Your task to perform on an android device: turn pop-ups on in chrome Image 0: 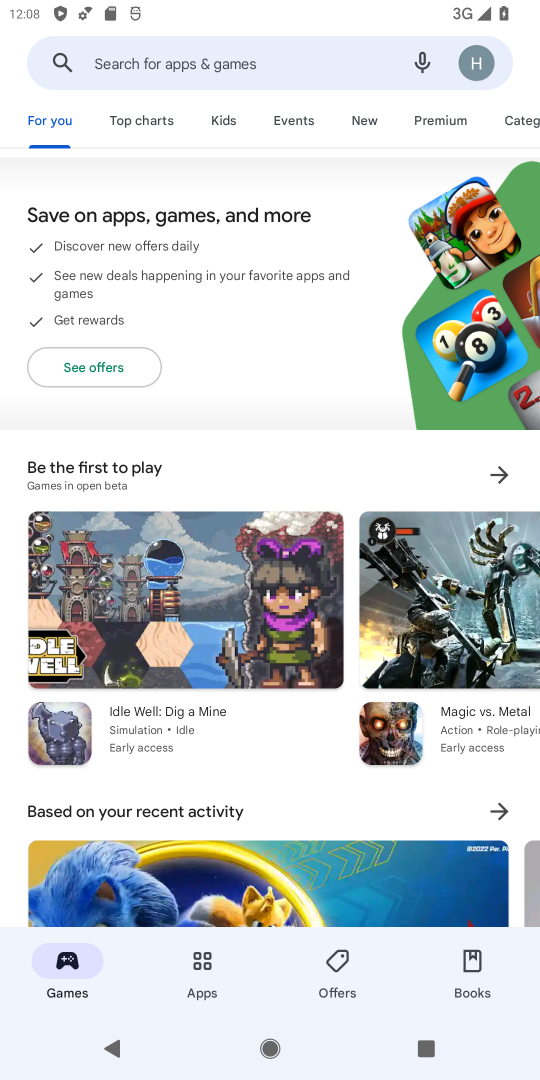
Step 0: press home button
Your task to perform on an android device: turn pop-ups on in chrome Image 1: 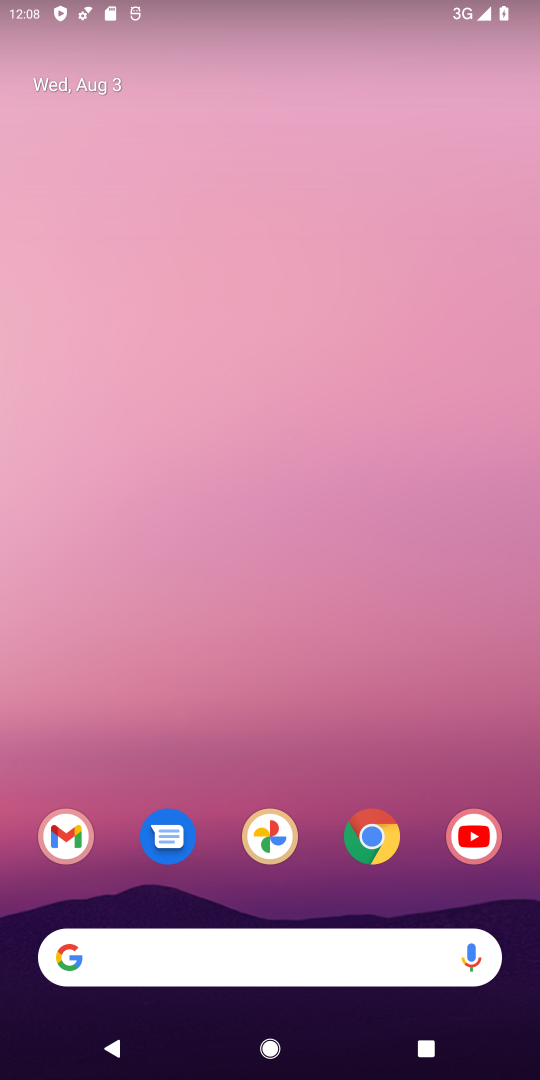
Step 1: drag from (303, 874) to (351, 455)
Your task to perform on an android device: turn pop-ups on in chrome Image 2: 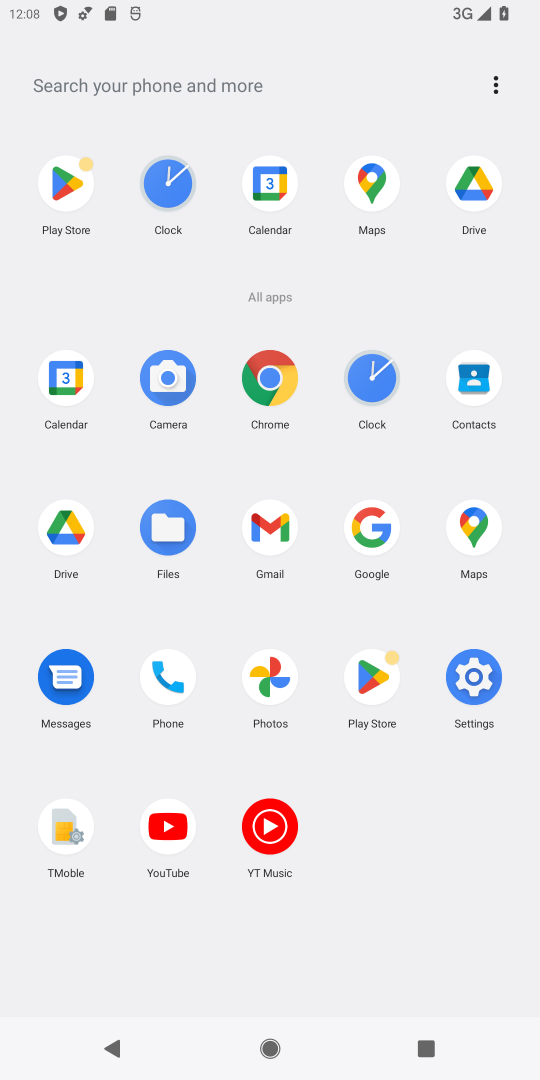
Step 2: click (282, 374)
Your task to perform on an android device: turn pop-ups on in chrome Image 3: 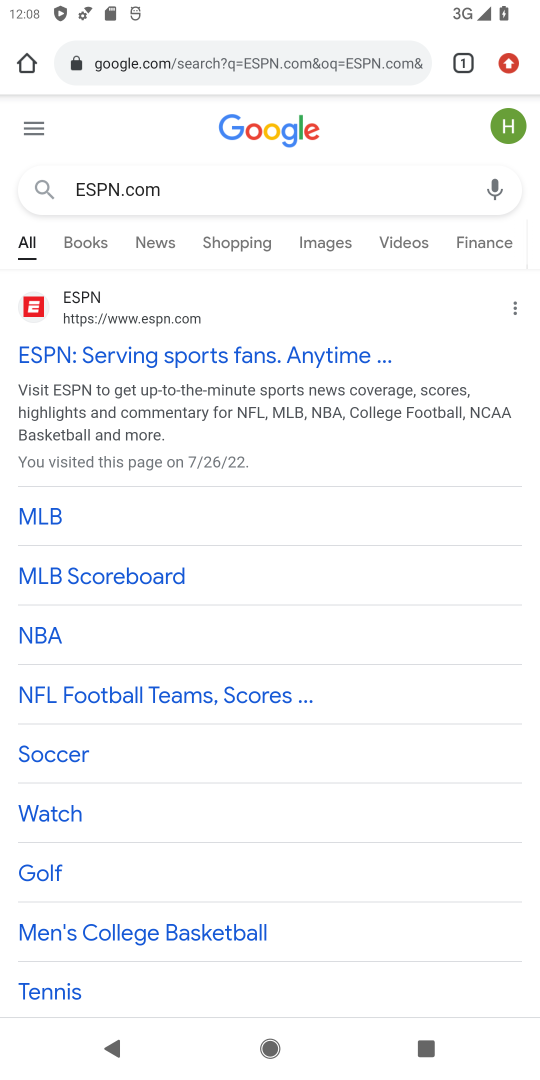
Step 3: drag from (512, 74) to (344, 804)
Your task to perform on an android device: turn pop-ups on in chrome Image 4: 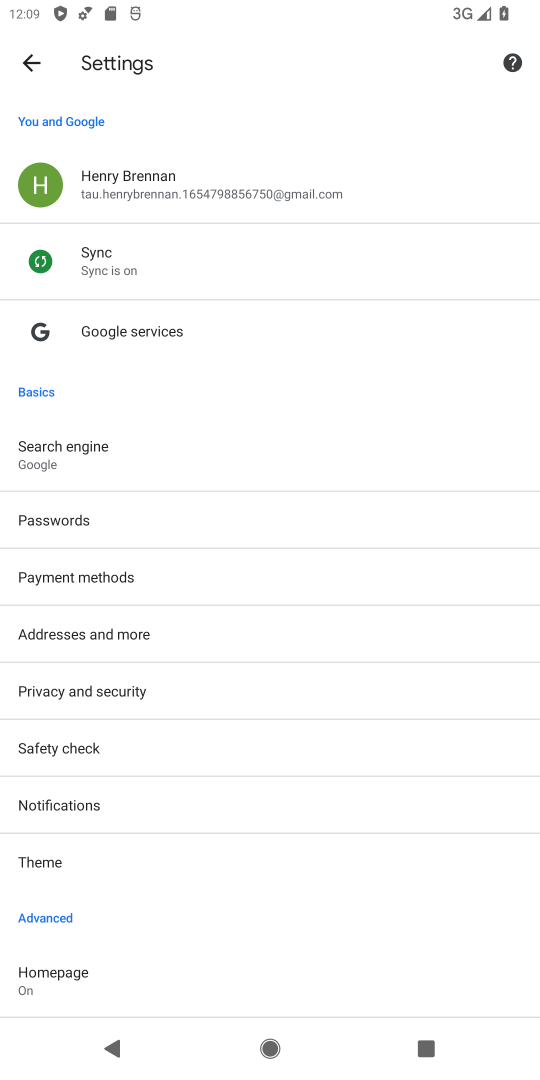
Step 4: drag from (238, 897) to (338, 257)
Your task to perform on an android device: turn pop-ups on in chrome Image 5: 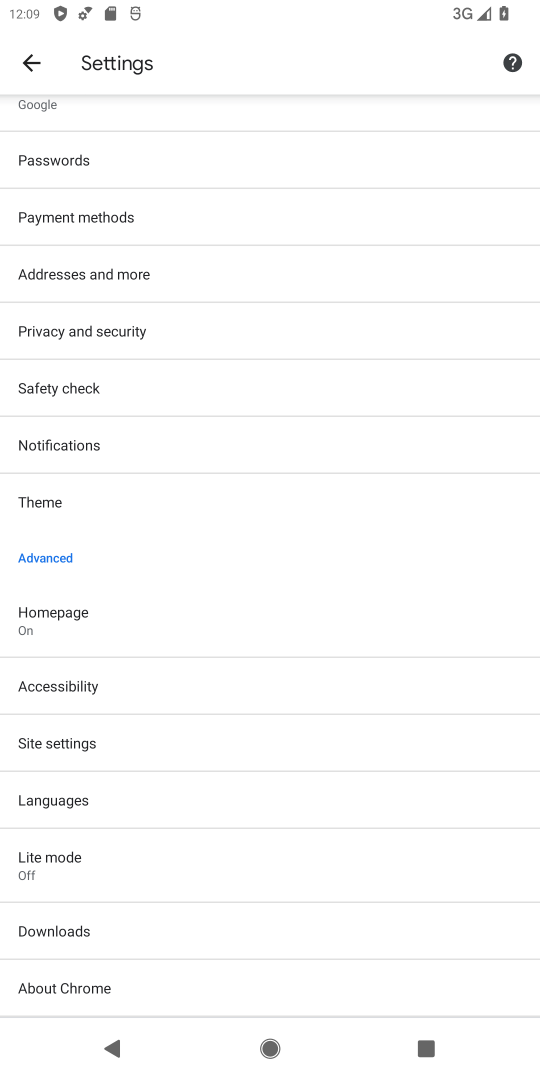
Step 5: click (97, 752)
Your task to perform on an android device: turn pop-ups on in chrome Image 6: 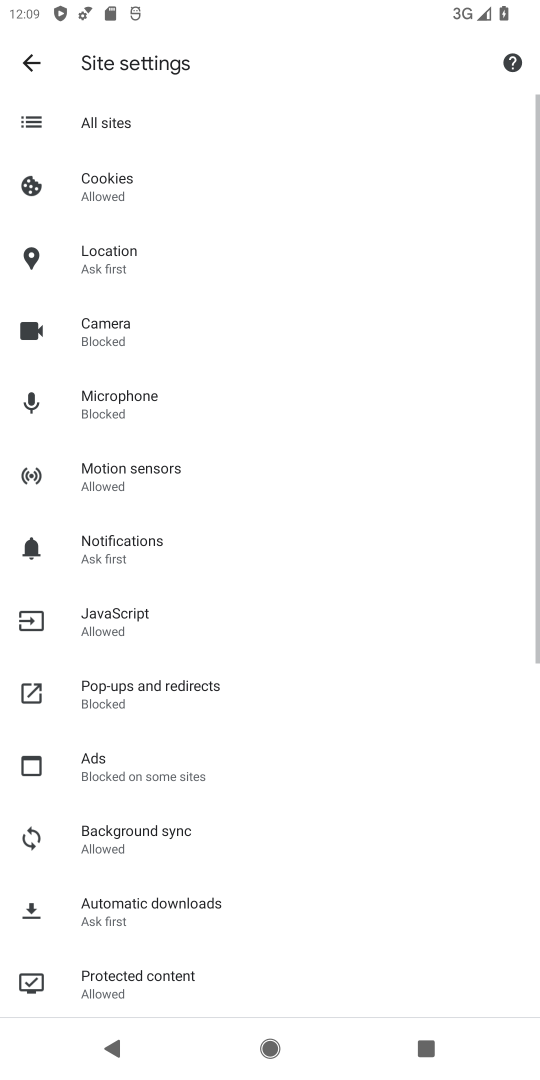
Step 6: drag from (341, 889) to (298, 139)
Your task to perform on an android device: turn pop-ups on in chrome Image 7: 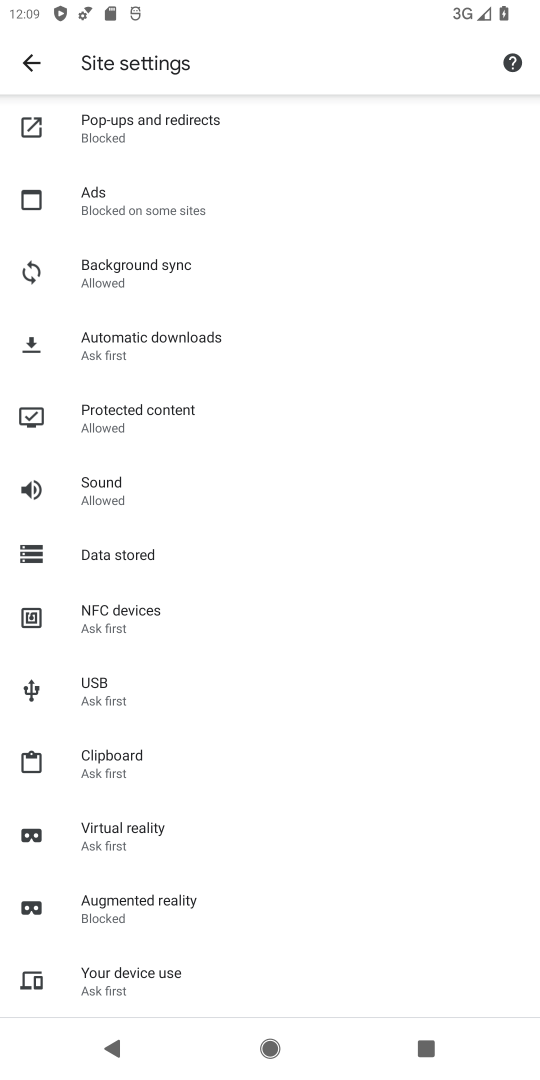
Step 7: drag from (268, 827) to (191, 281)
Your task to perform on an android device: turn pop-ups on in chrome Image 8: 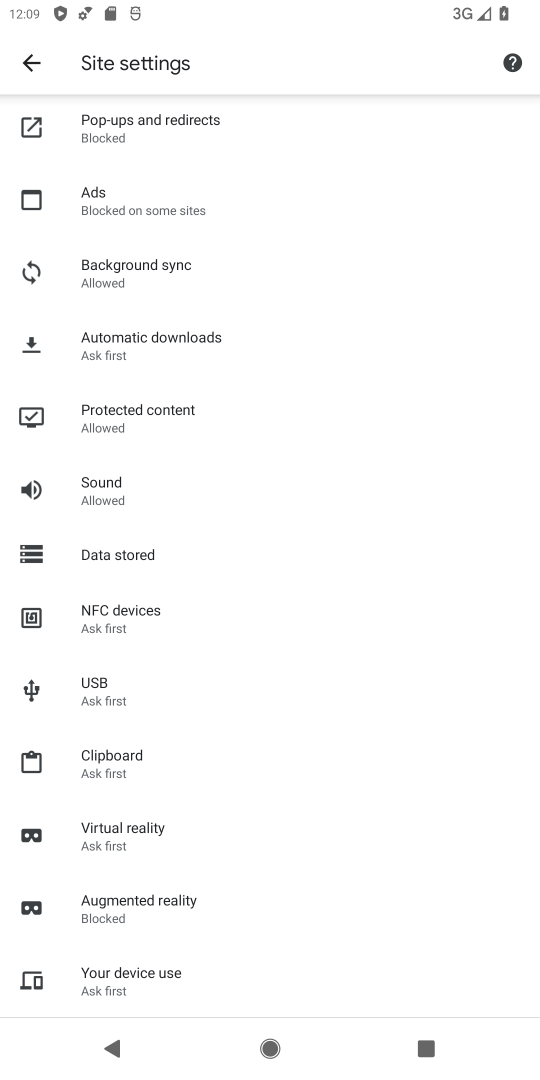
Step 8: drag from (219, 269) to (393, 774)
Your task to perform on an android device: turn pop-ups on in chrome Image 9: 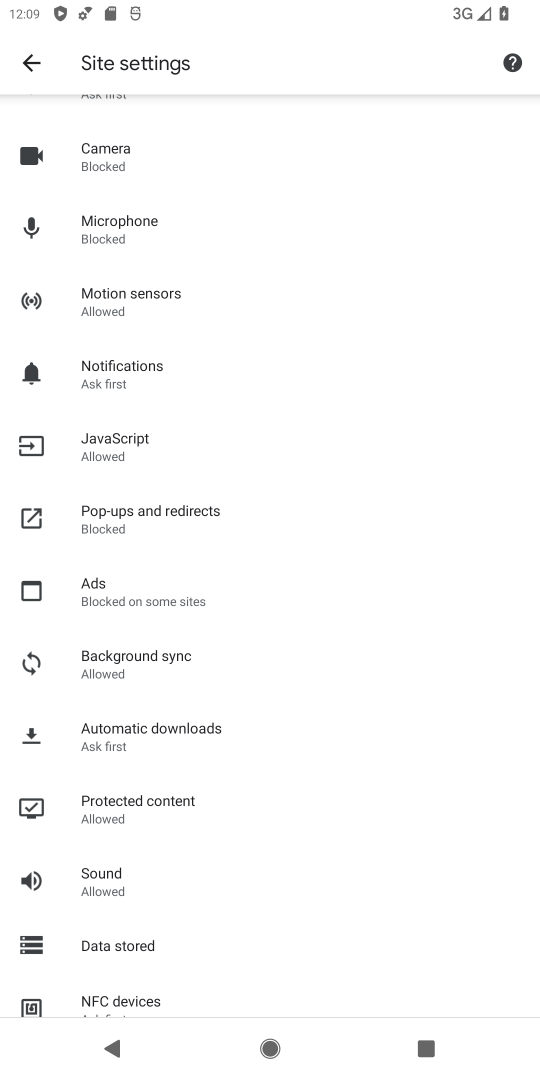
Step 9: drag from (222, 986) to (305, 455)
Your task to perform on an android device: turn pop-ups on in chrome Image 10: 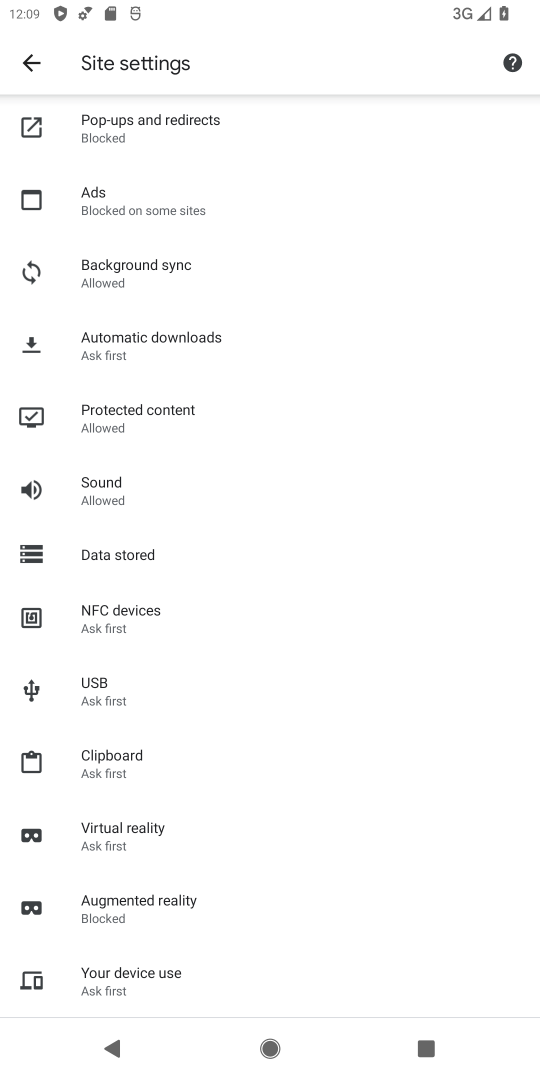
Step 10: click (152, 130)
Your task to perform on an android device: turn pop-ups on in chrome Image 11: 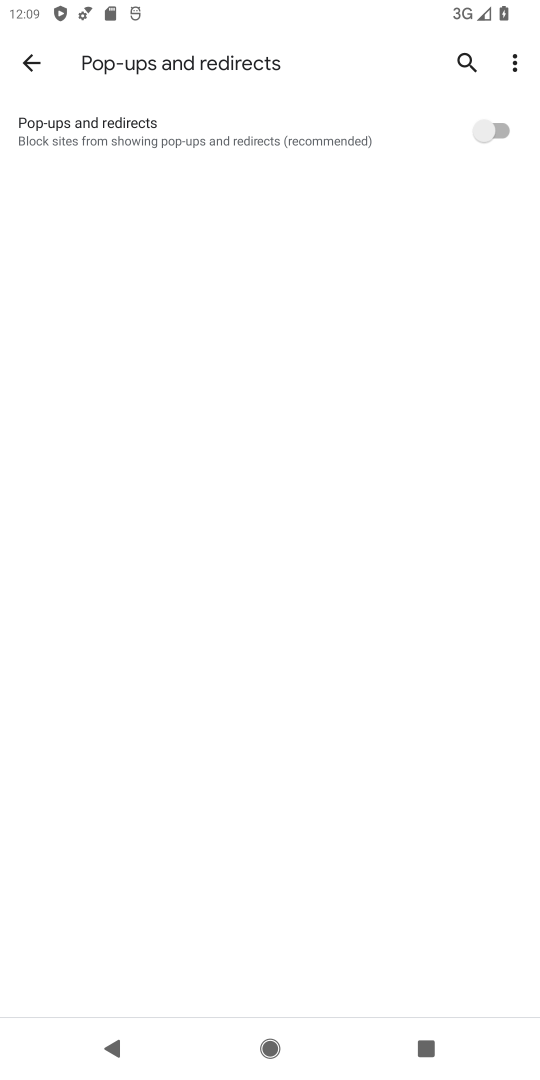
Step 11: click (219, 138)
Your task to perform on an android device: turn pop-ups on in chrome Image 12: 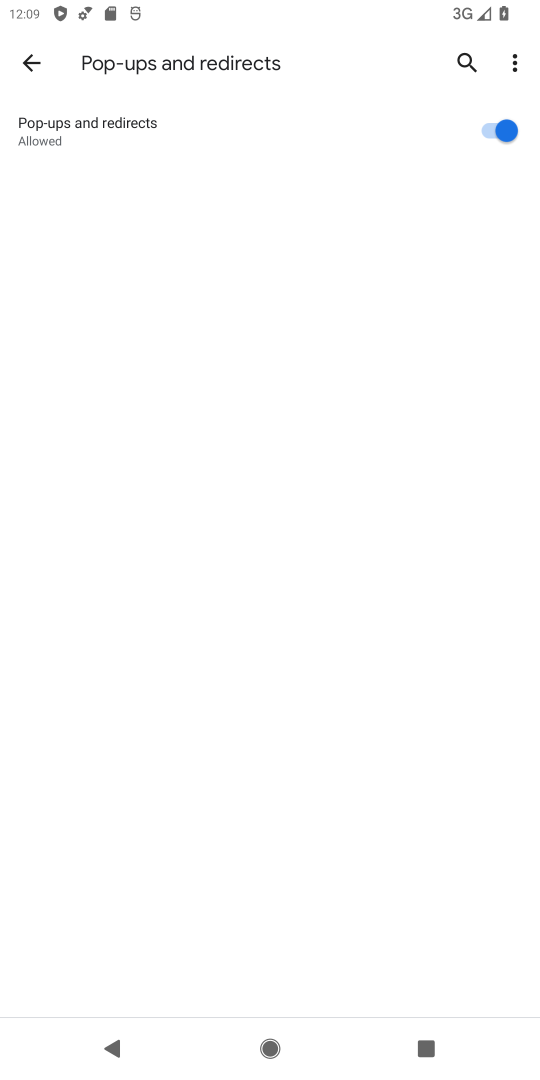
Step 12: task complete